Your task to perform on an android device: all mails in gmail Image 0: 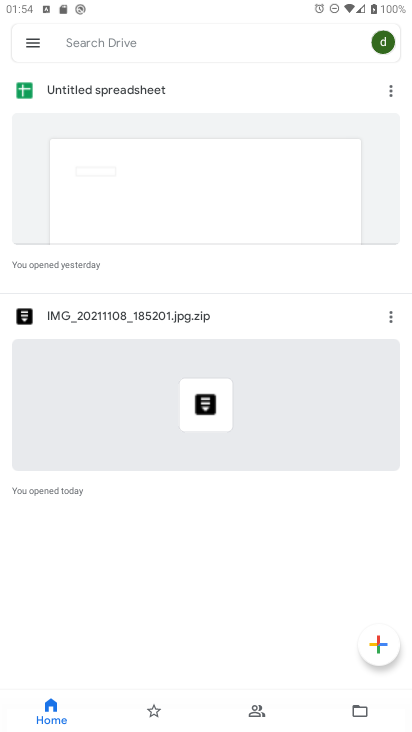
Step 0: press home button
Your task to perform on an android device: all mails in gmail Image 1: 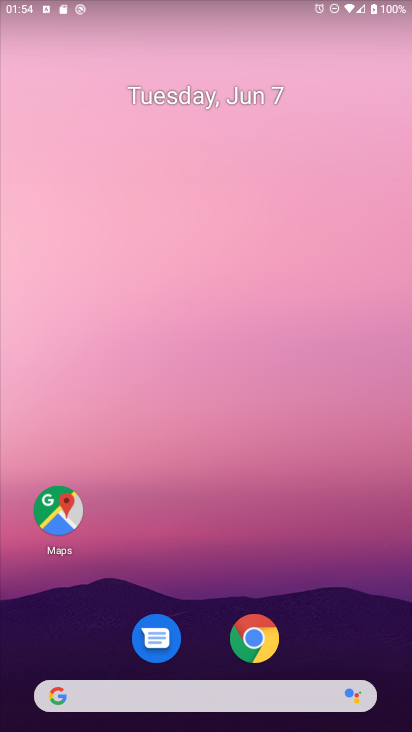
Step 1: drag from (198, 722) to (225, 151)
Your task to perform on an android device: all mails in gmail Image 2: 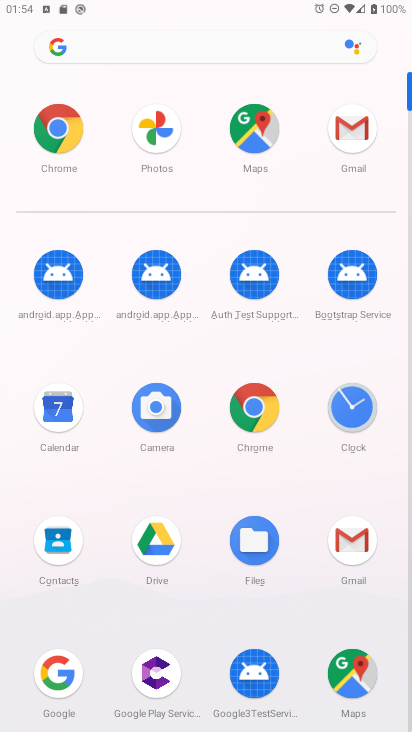
Step 2: click (355, 551)
Your task to perform on an android device: all mails in gmail Image 3: 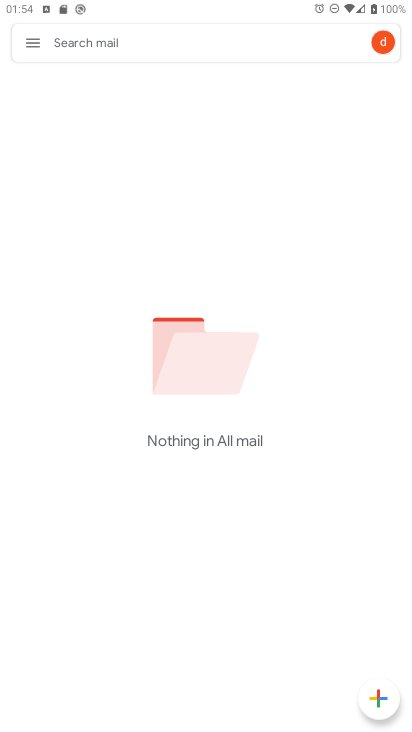
Step 3: click (30, 43)
Your task to perform on an android device: all mails in gmail Image 4: 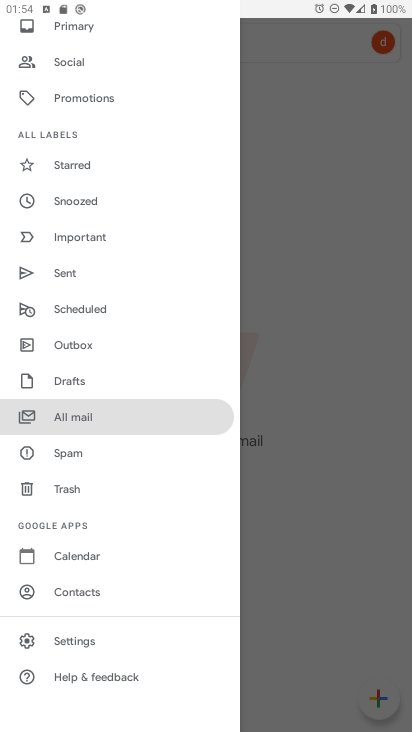
Step 4: click (101, 423)
Your task to perform on an android device: all mails in gmail Image 5: 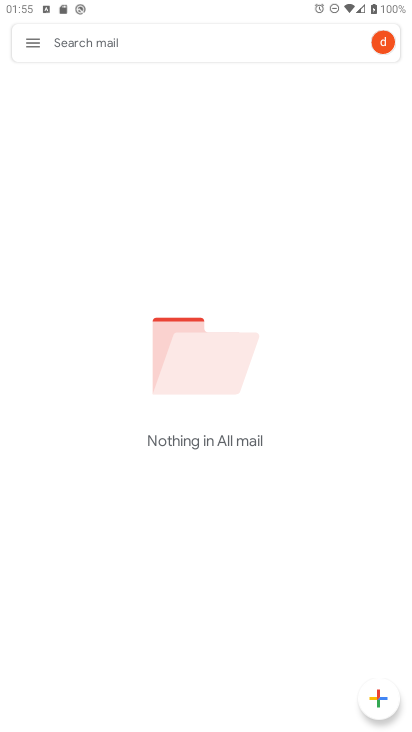
Step 5: task complete